Your task to perform on an android device: Turn on the flashlight Image 0: 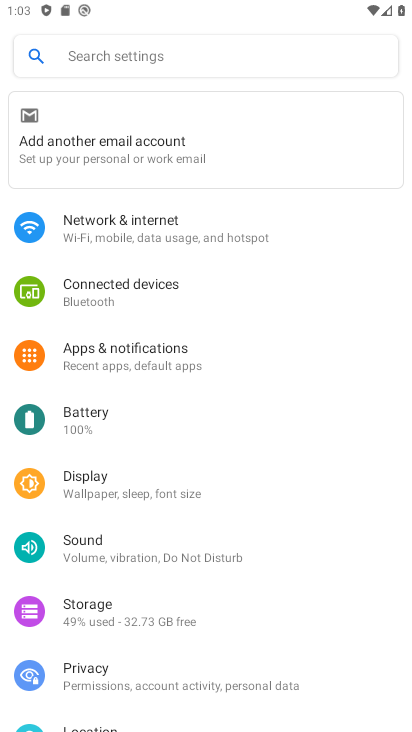
Step 0: press home button
Your task to perform on an android device: Turn on the flashlight Image 1: 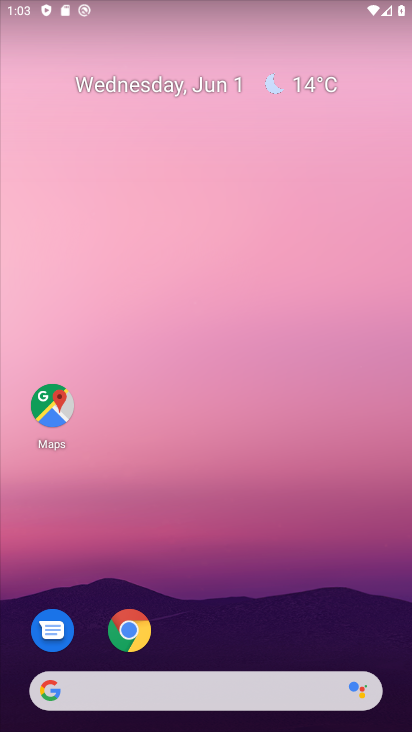
Step 1: drag from (203, 658) to (257, 59)
Your task to perform on an android device: Turn on the flashlight Image 2: 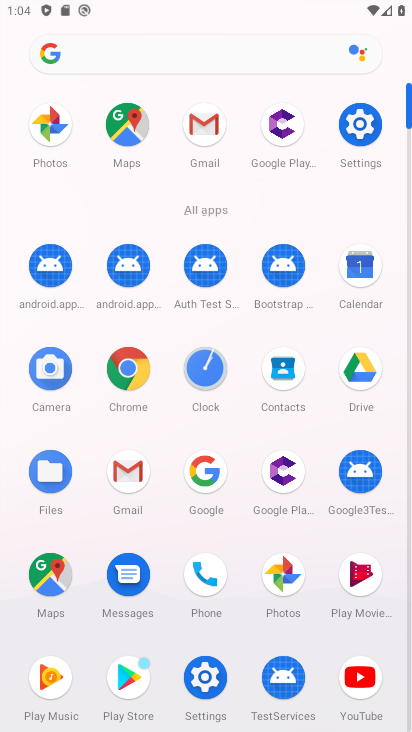
Step 2: click (202, 668)
Your task to perform on an android device: Turn on the flashlight Image 3: 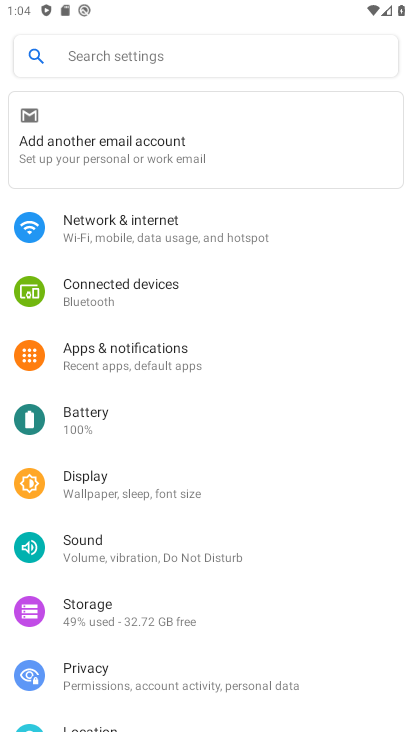
Step 3: click (140, 56)
Your task to perform on an android device: Turn on the flashlight Image 4: 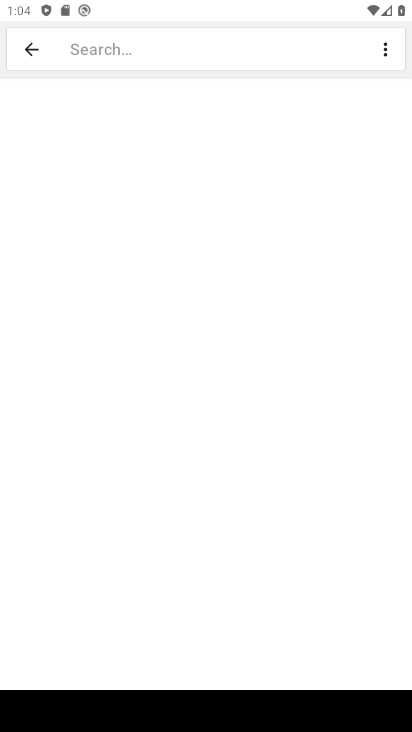
Step 4: type "flashlight"
Your task to perform on an android device: Turn on the flashlight Image 5: 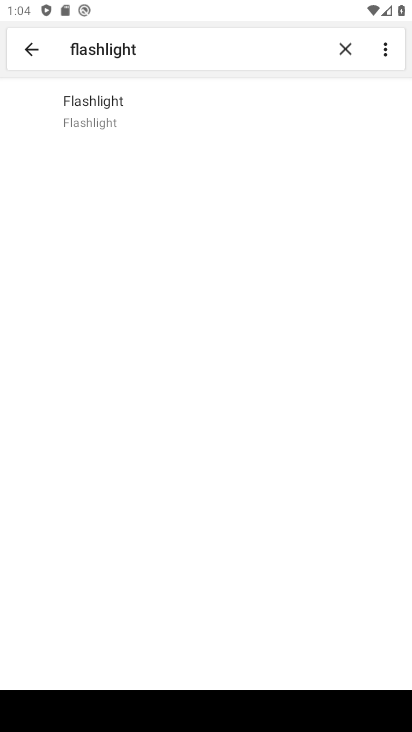
Step 5: click (127, 103)
Your task to perform on an android device: Turn on the flashlight Image 6: 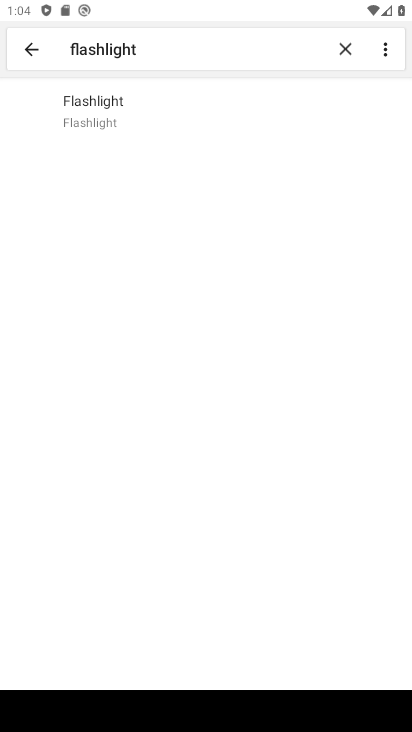
Step 6: task complete